Your task to perform on an android device: check google app version Image 0: 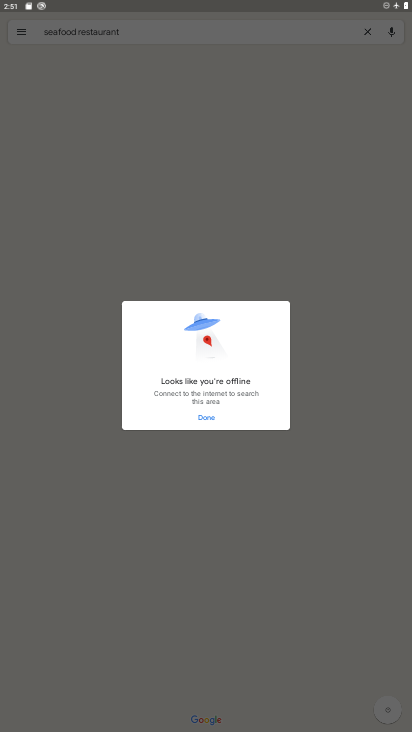
Step 0: press home button
Your task to perform on an android device: check google app version Image 1: 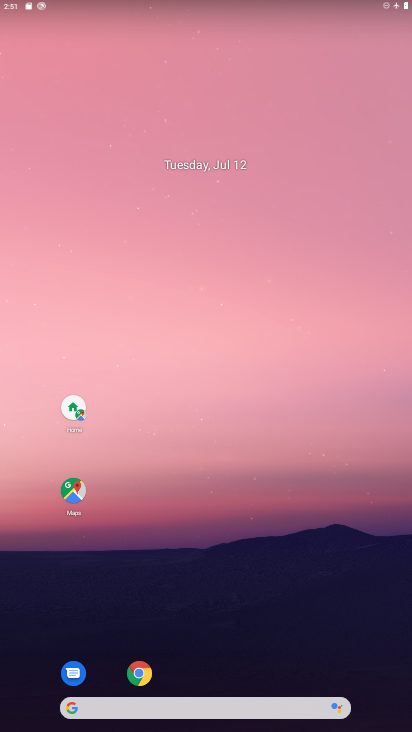
Step 1: drag from (241, 677) to (222, 313)
Your task to perform on an android device: check google app version Image 2: 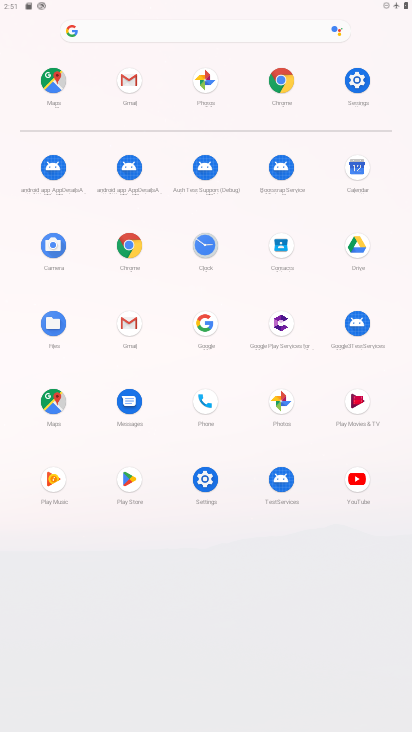
Step 2: click (205, 327)
Your task to perform on an android device: check google app version Image 3: 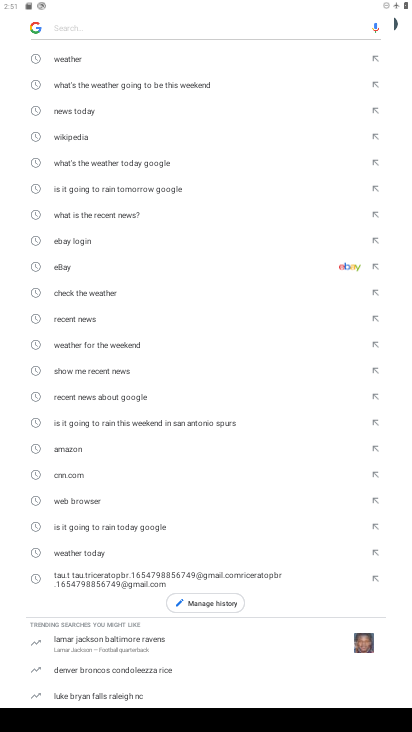
Step 3: click (27, 17)
Your task to perform on an android device: check google app version Image 4: 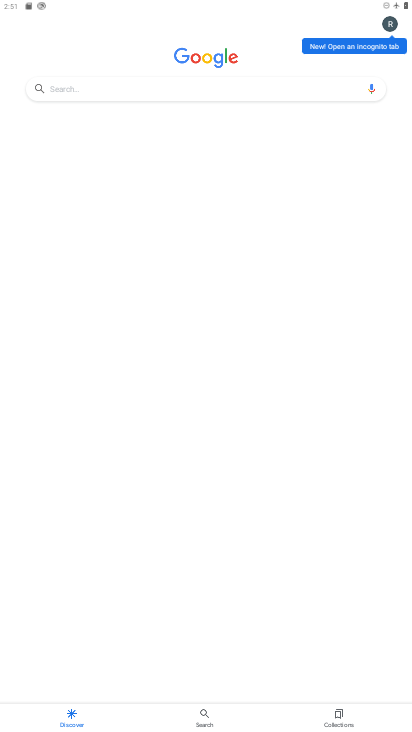
Step 4: click (390, 22)
Your task to perform on an android device: check google app version Image 5: 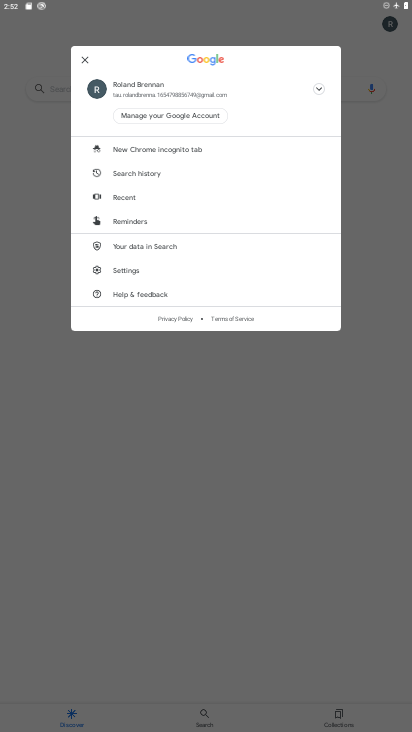
Step 5: click (132, 269)
Your task to perform on an android device: check google app version Image 6: 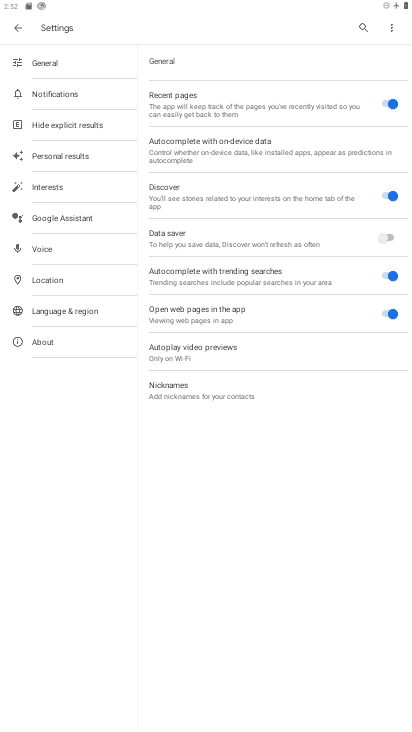
Step 6: click (69, 345)
Your task to perform on an android device: check google app version Image 7: 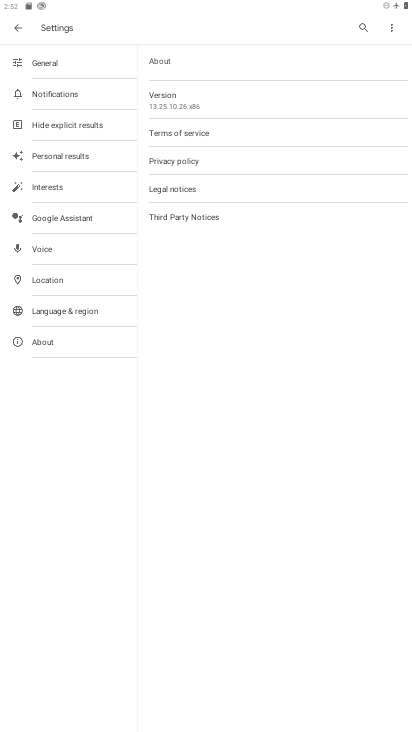
Step 7: click (183, 98)
Your task to perform on an android device: check google app version Image 8: 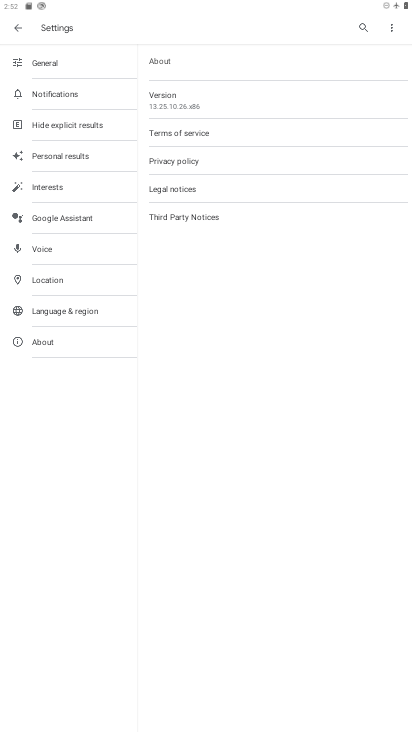
Step 8: task complete